Your task to perform on an android device: When is my next meeting? Image 0: 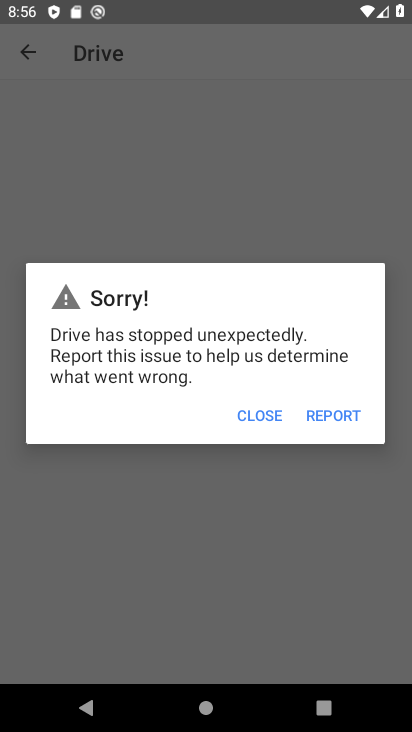
Step 0: click (245, 412)
Your task to perform on an android device: When is my next meeting? Image 1: 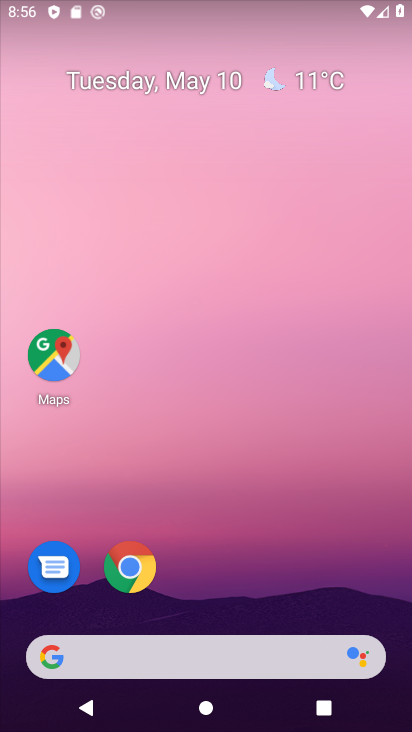
Step 1: drag from (130, 636) to (92, 286)
Your task to perform on an android device: When is my next meeting? Image 2: 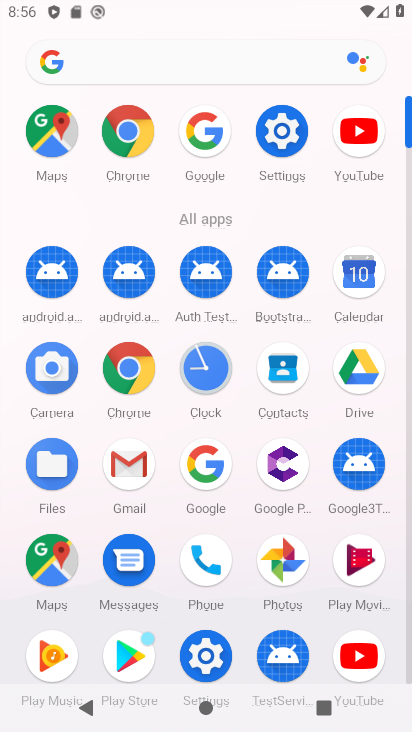
Step 2: click (345, 284)
Your task to perform on an android device: When is my next meeting? Image 3: 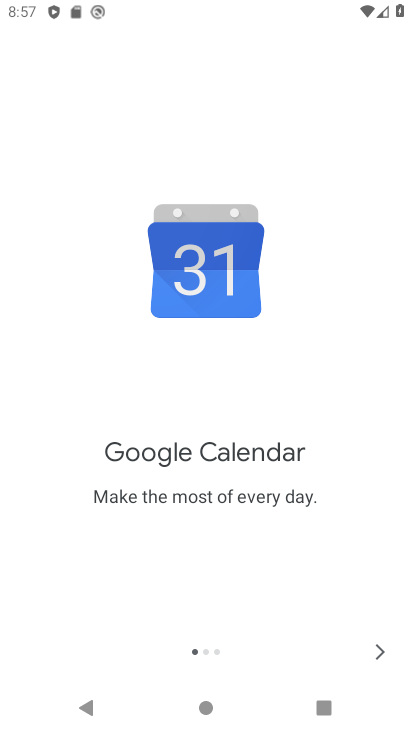
Step 3: click (368, 646)
Your task to perform on an android device: When is my next meeting? Image 4: 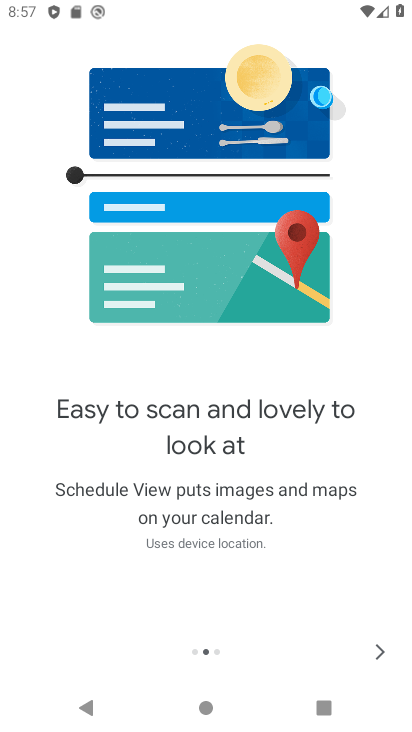
Step 4: click (368, 646)
Your task to perform on an android device: When is my next meeting? Image 5: 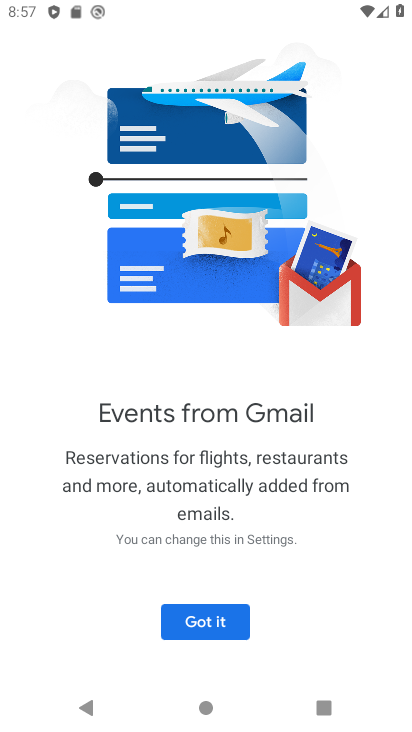
Step 5: click (181, 614)
Your task to perform on an android device: When is my next meeting? Image 6: 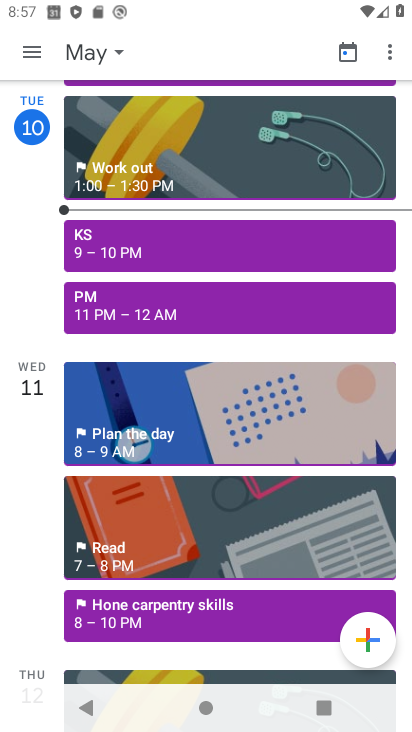
Step 6: task complete